Your task to perform on an android device: Open internet settings Image 0: 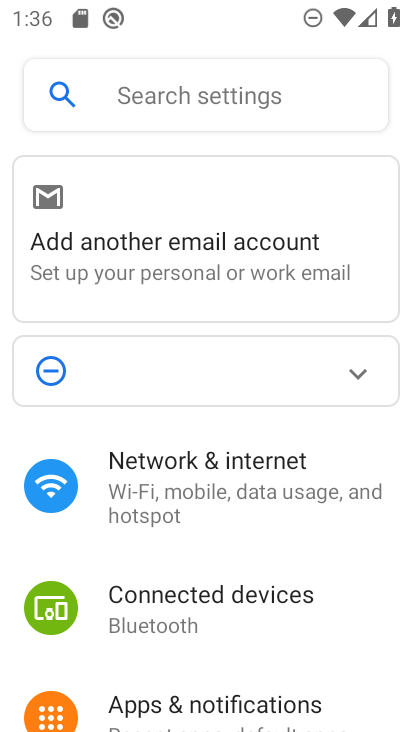
Step 0: click (263, 513)
Your task to perform on an android device: Open internet settings Image 1: 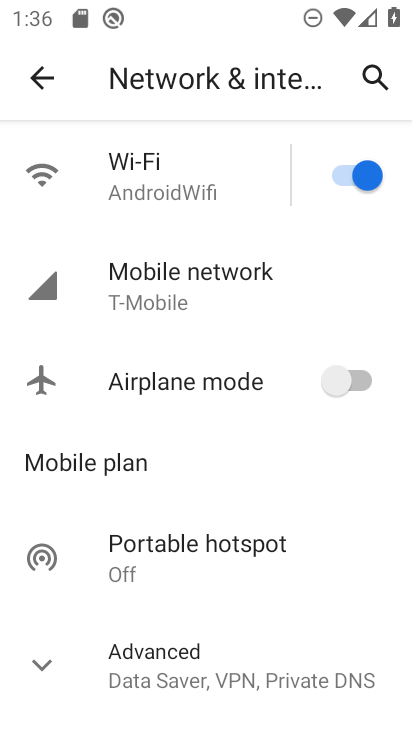
Step 1: click (188, 294)
Your task to perform on an android device: Open internet settings Image 2: 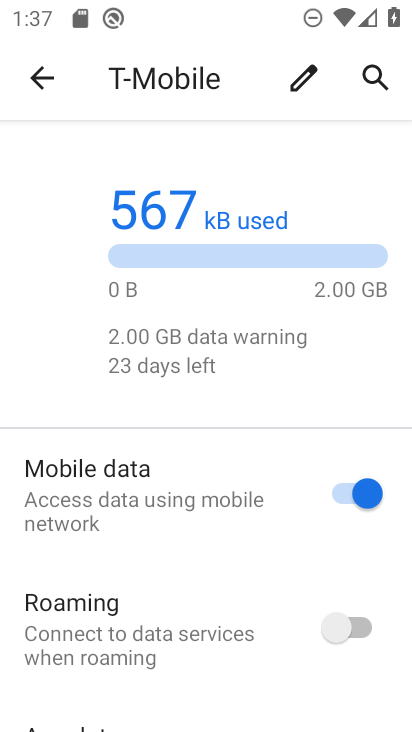
Step 2: task complete